Your task to perform on an android device: Open calendar and show me the third week of next month Image 0: 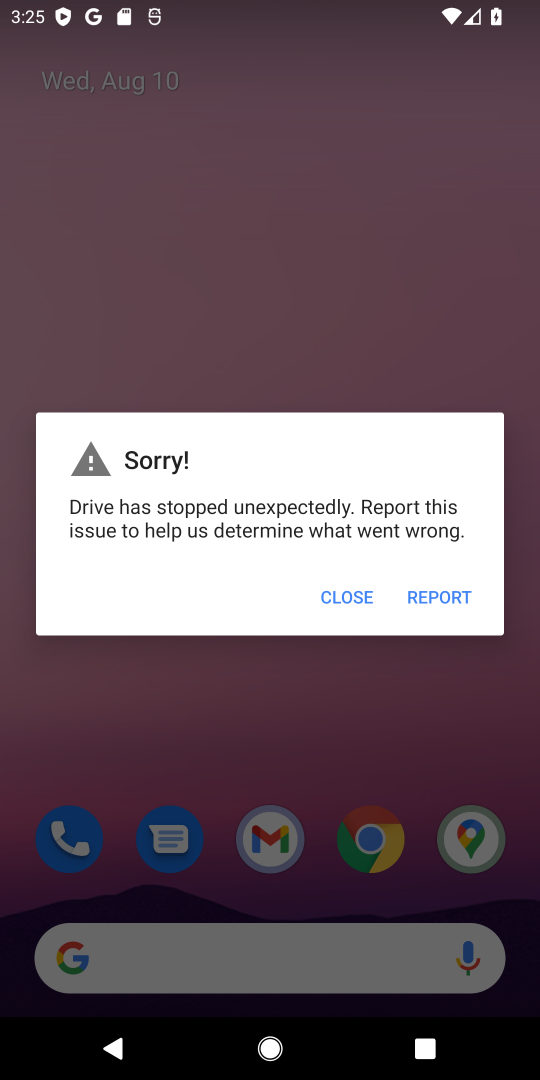
Step 0: press home button
Your task to perform on an android device: Open calendar and show me the third week of next month Image 1: 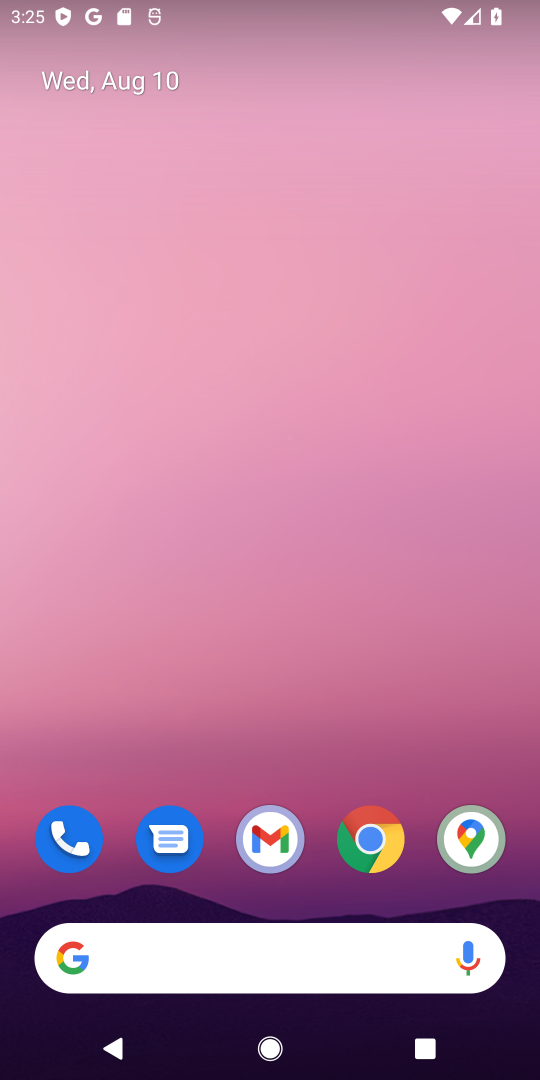
Step 1: drag from (45, 1024) to (142, 467)
Your task to perform on an android device: Open calendar and show me the third week of next month Image 2: 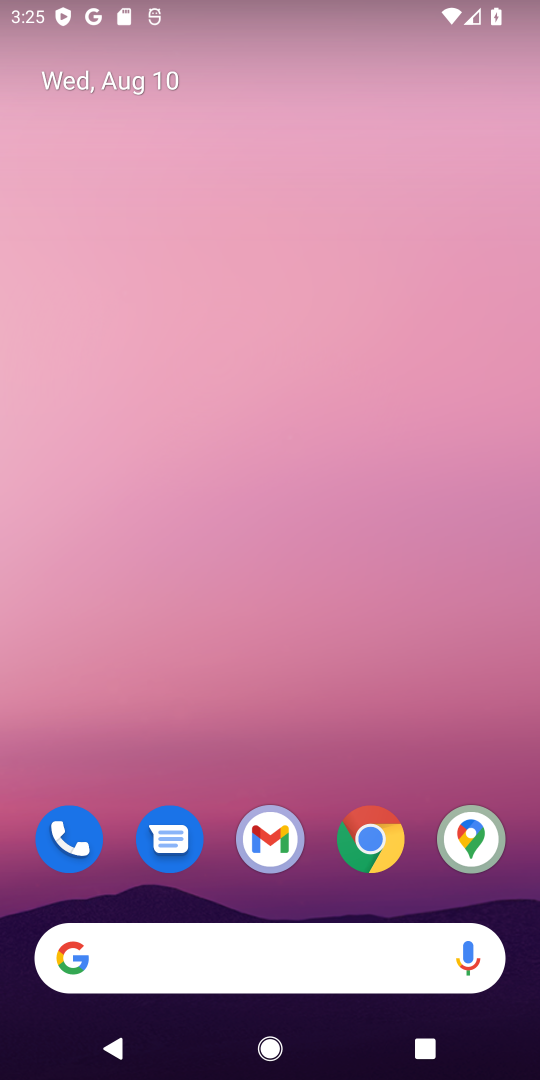
Step 2: drag from (53, 1015) to (204, 277)
Your task to perform on an android device: Open calendar and show me the third week of next month Image 3: 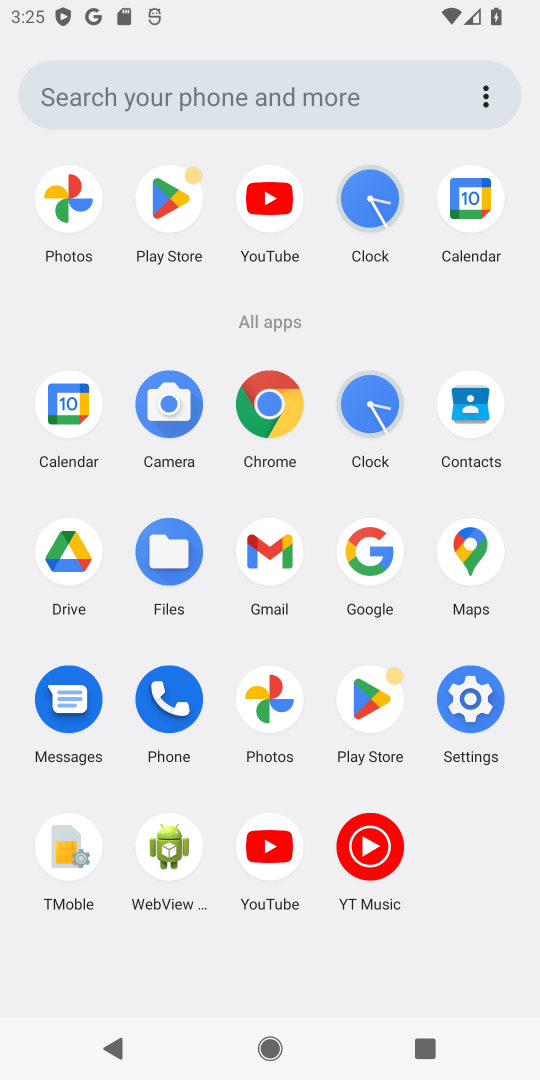
Step 3: click (67, 422)
Your task to perform on an android device: Open calendar and show me the third week of next month Image 4: 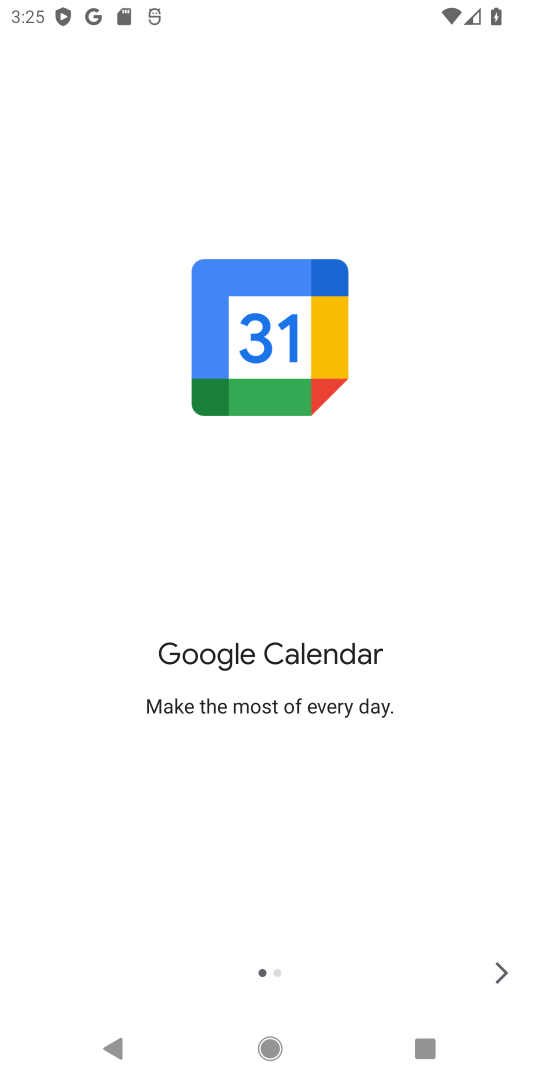
Step 4: click (497, 978)
Your task to perform on an android device: Open calendar and show me the third week of next month Image 5: 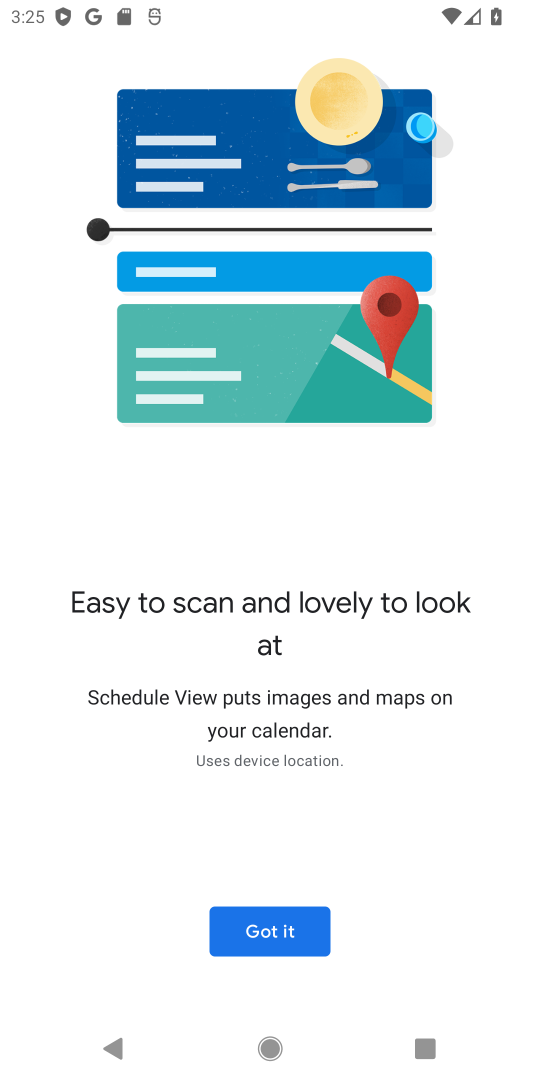
Step 5: click (265, 926)
Your task to perform on an android device: Open calendar and show me the third week of next month Image 6: 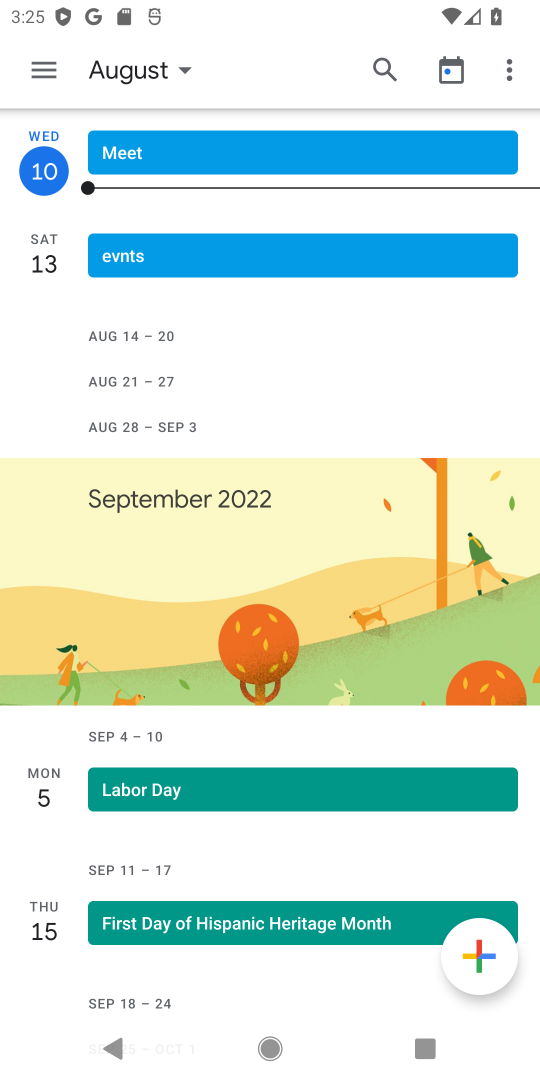
Step 6: click (175, 75)
Your task to perform on an android device: Open calendar and show me the third week of next month Image 7: 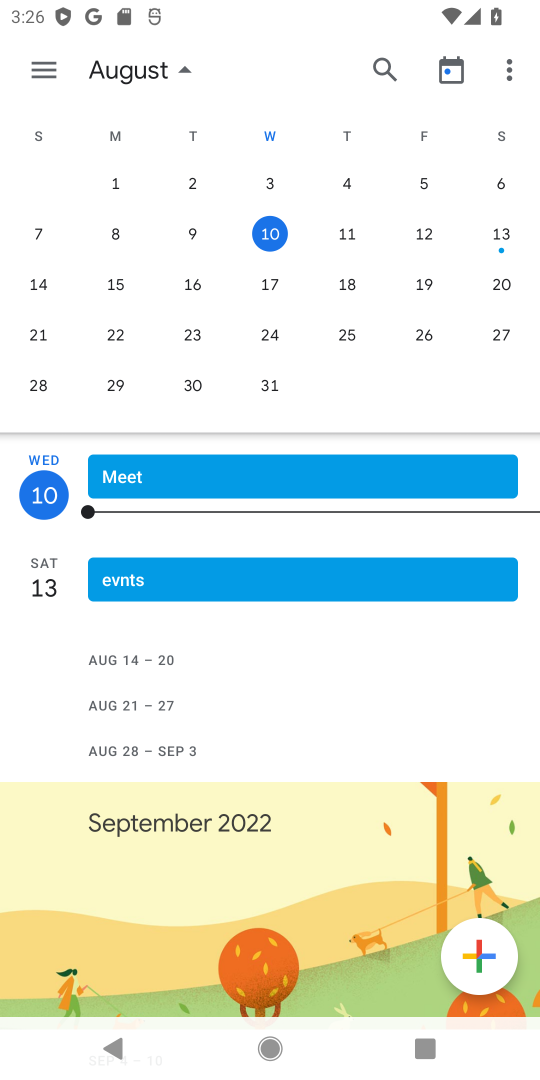
Step 7: drag from (513, 183) to (14, 219)
Your task to perform on an android device: Open calendar and show me the third week of next month Image 8: 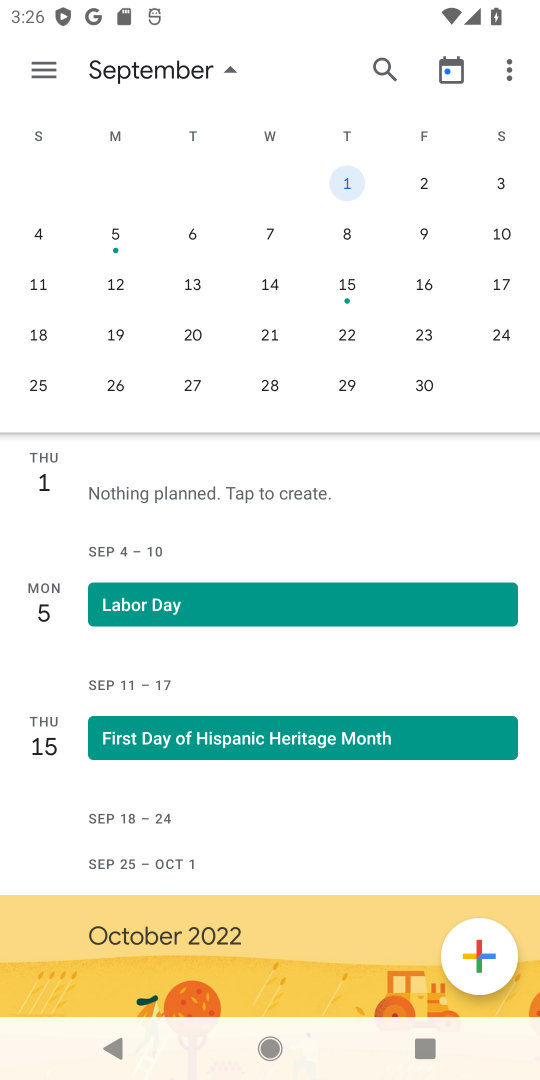
Step 8: click (114, 283)
Your task to perform on an android device: Open calendar and show me the third week of next month Image 9: 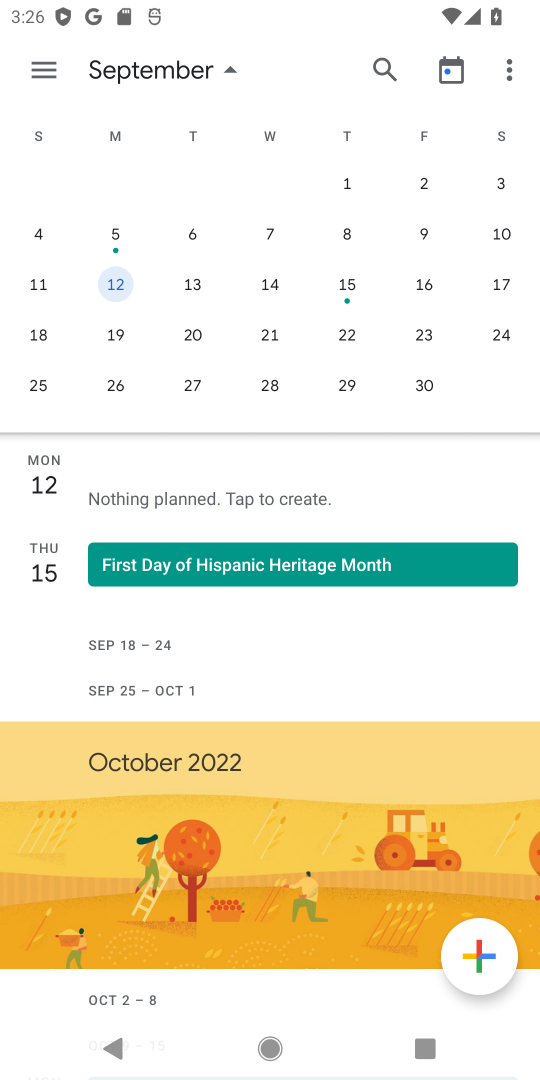
Step 9: task complete